Your task to perform on an android device: turn on the 24-hour format for clock Image 0: 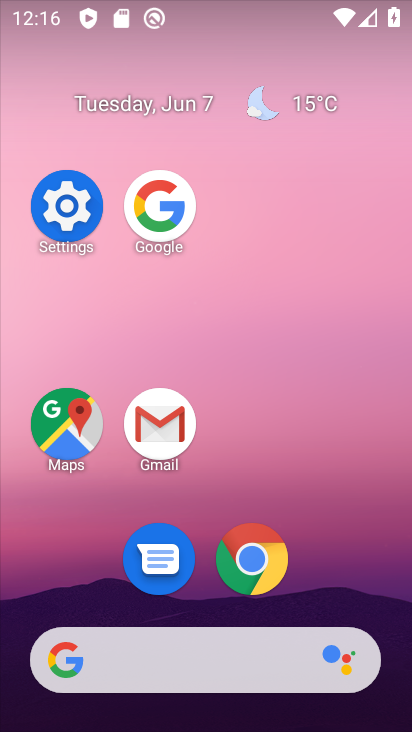
Step 0: drag from (357, 509) to (341, 122)
Your task to perform on an android device: turn on the 24-hour format for clock Image 1: 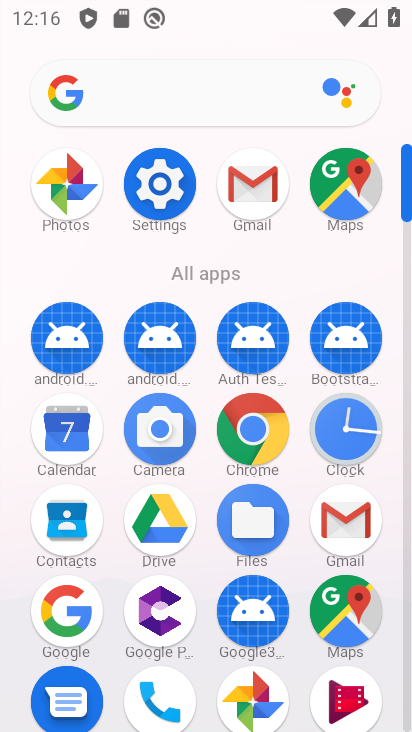
Step 1: drag from (325, 440) to (234, 248)
Your task to perform on an android device: turn on the 24-hour format for clock Image 2: 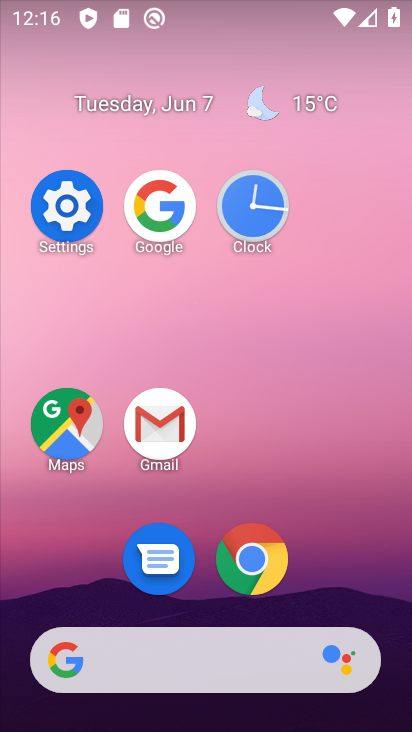
Step 2: drag from (162, 218) to (224, 410)
Your task to perform on an android device: turn on the 24-hour format for clock Image 3: 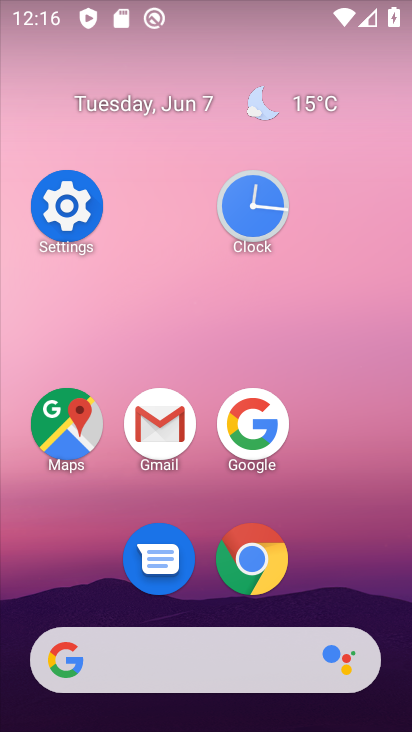
Step 3: drag from (241, 206) to (146, 215)
Your task to perform on an android device: turn on the 24-hour format for clock Image 4: 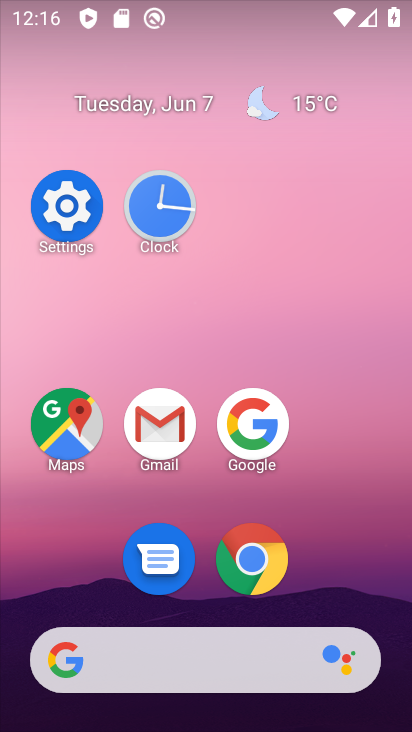
Step 4: click (149, 207)
Your task to perform on an android device: turn on the 24-hour format for clock Image 5: 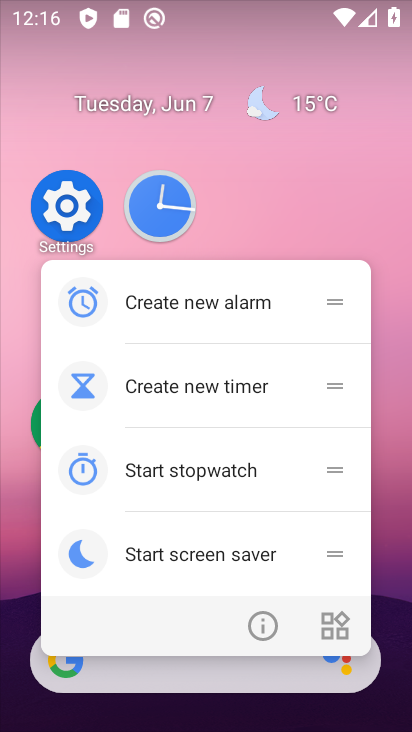
Step 5: click (153, 206)
Your task to perform on an android device: turn on the 24-hour format for clock Image 6: 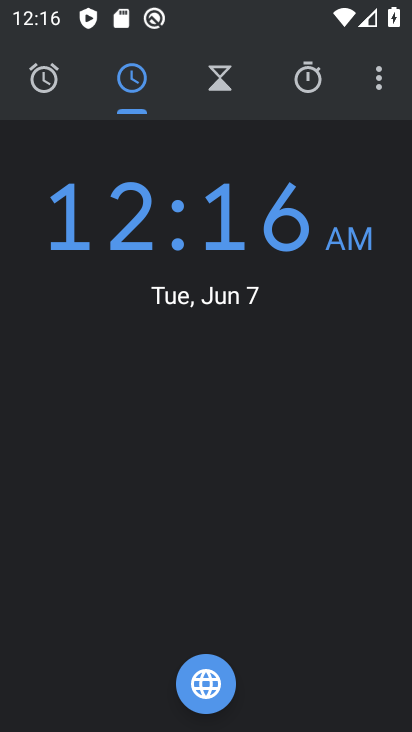
Step 6: click (374, 70)
Your task to perform on an android device: turn on the 24-hour format for clock Image 7: 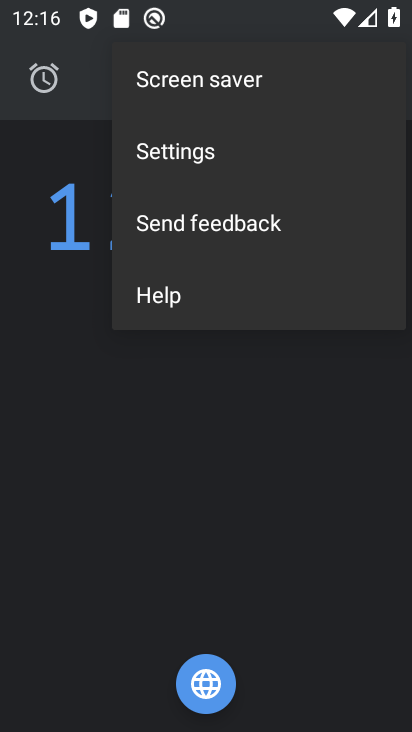
Step 7: click (247, 154)
Your task to perform on an android device: turn on the 24-hour format for clock Image 8: 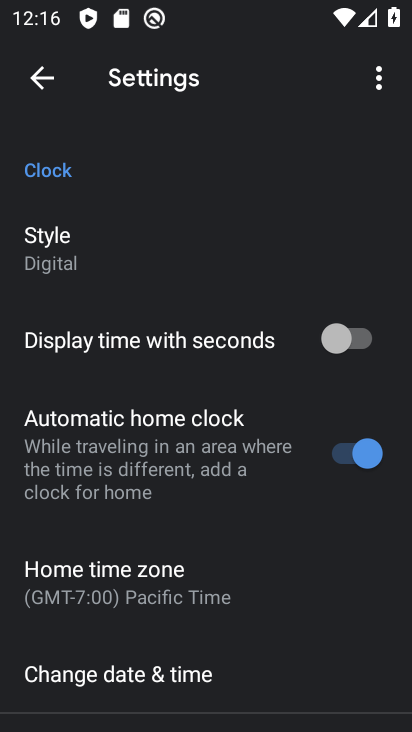
Step 8: drag from (162, 560) to (176, 322)
Your task to perform on an android device: turn on the 24-hour format for clock Image 9: 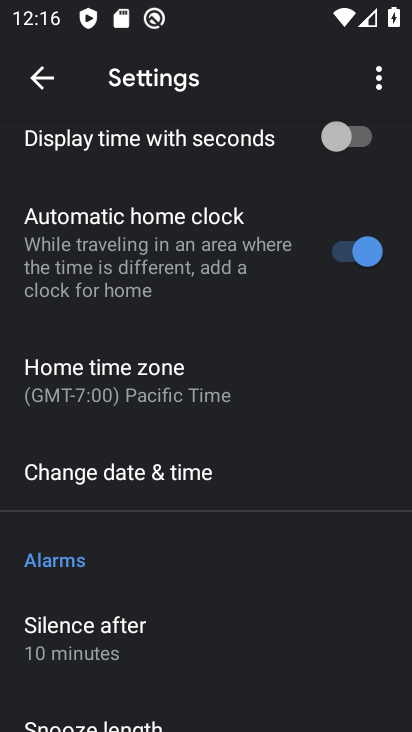
Step 9: click (131, 481)
Your task to perform on an android device: turn on the 24-hour format for clock Image 10: 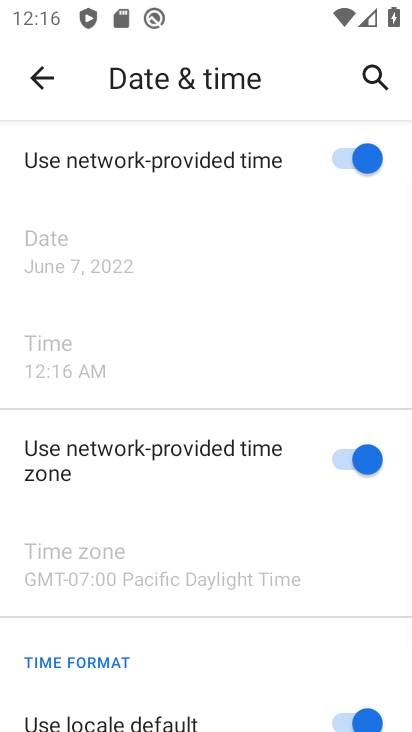
Step 10: drag from (137, 595) to (190, 279)
Your task to perform on an android device: turn on the 24-hour format for clock Image 11: 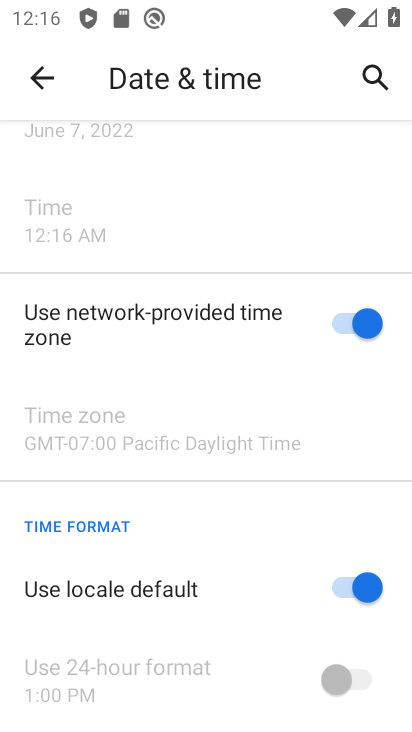
Step 11: click (359, 583)
Your task to perform on an android device: turn on the 24-hour format for clock Image 12: 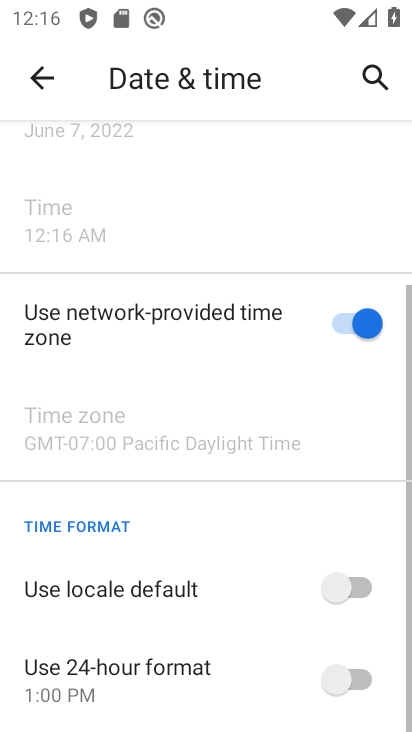
Step 12: click (328, 681)
Your task to perform on an android device: turn on the 24-hour format for clock Image 13: 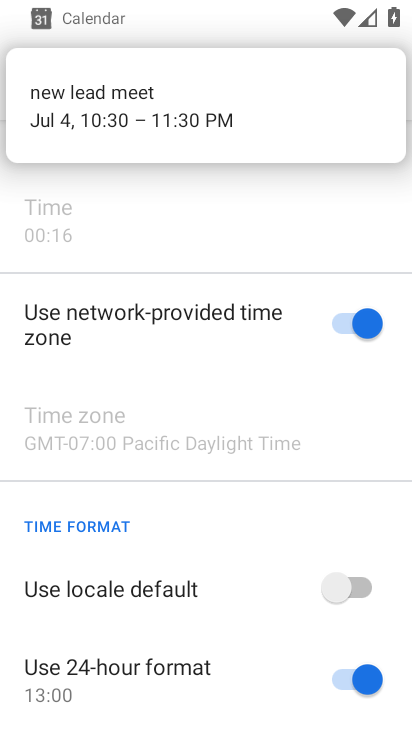
Step 13: task complete